Your task to perform on an android device: turn vacation reply on in the gmail app Image 0: 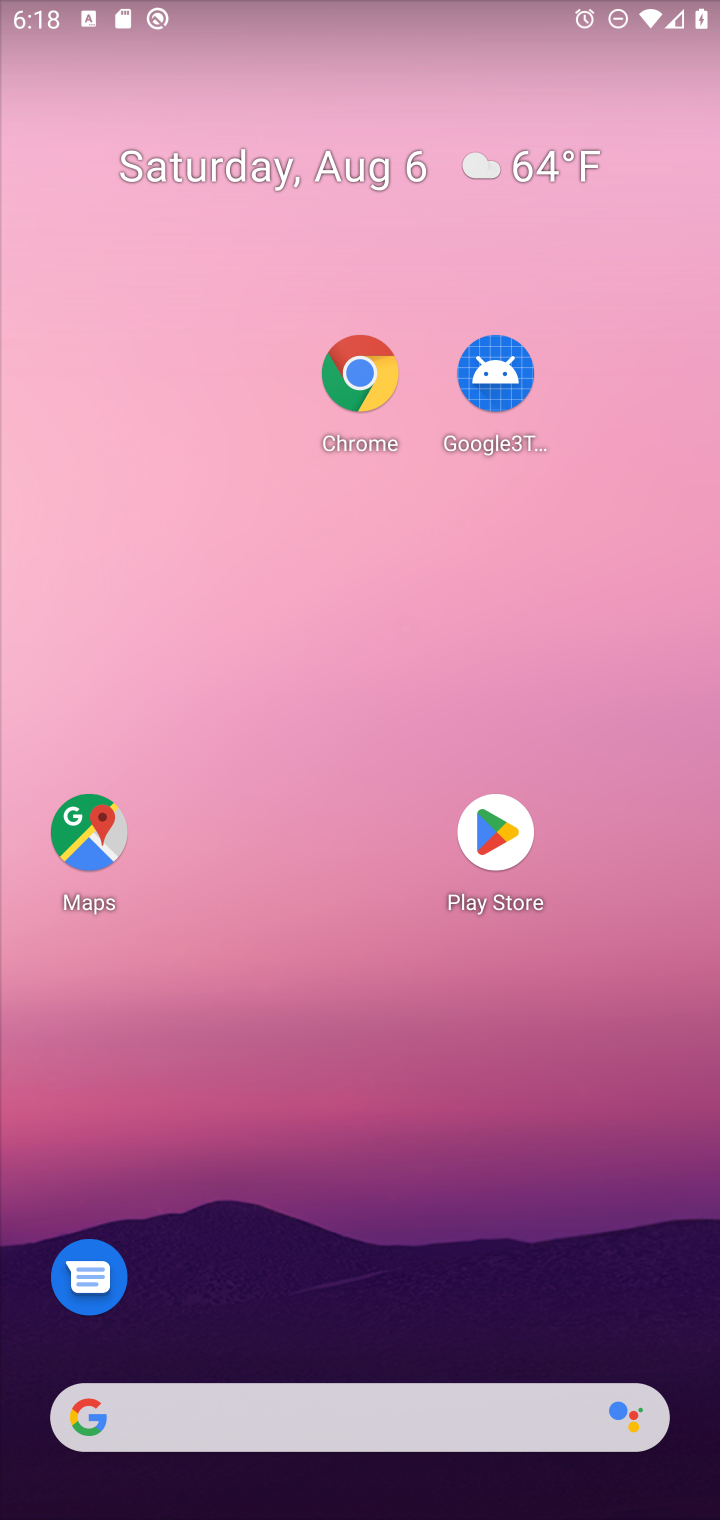
Step 0: drag from (529, 1405) to (499, 43)
Your task to perform on an android device: turn vacation reply on in the gmail app Image 1: 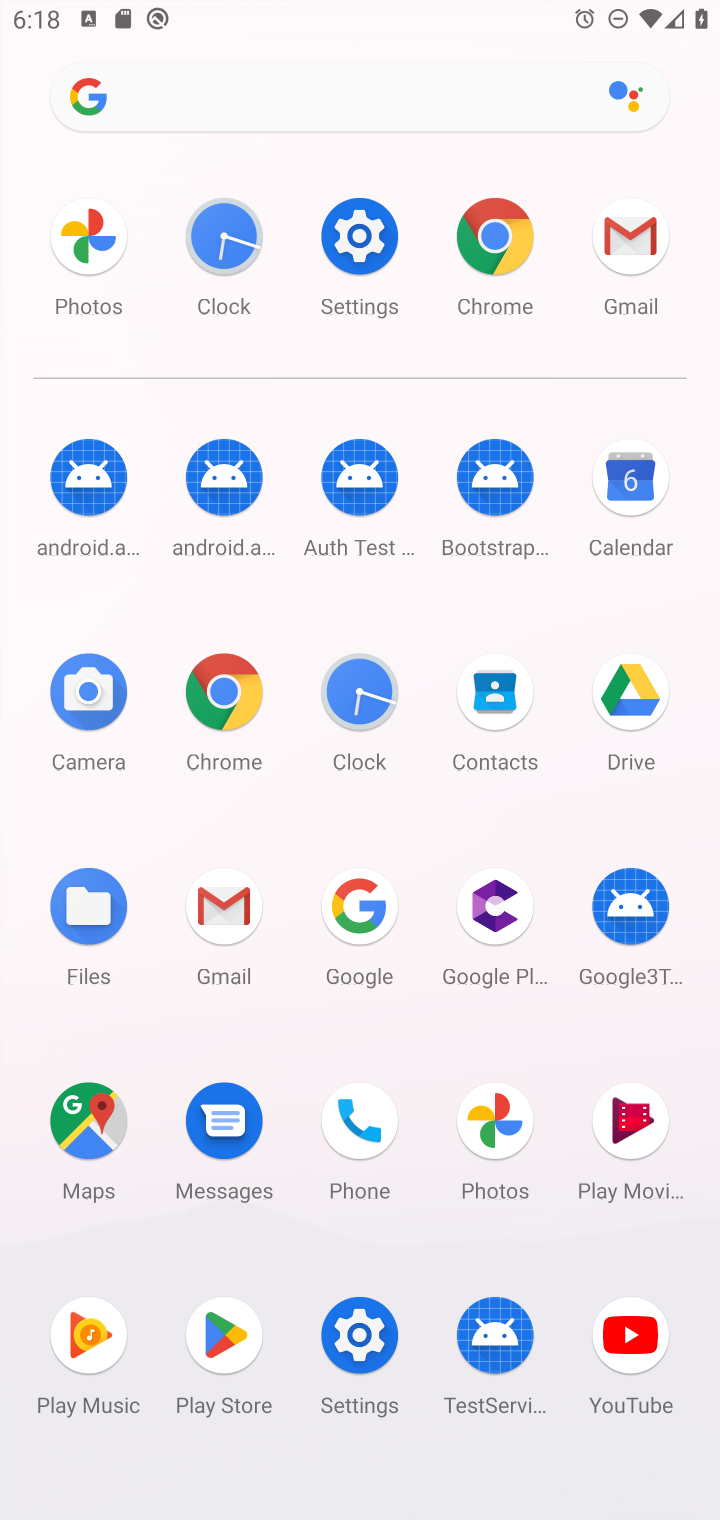
Step 1: click (245, 908)
Your task to perform on an android device: turn vacation reply on in the gmail app Image 2: 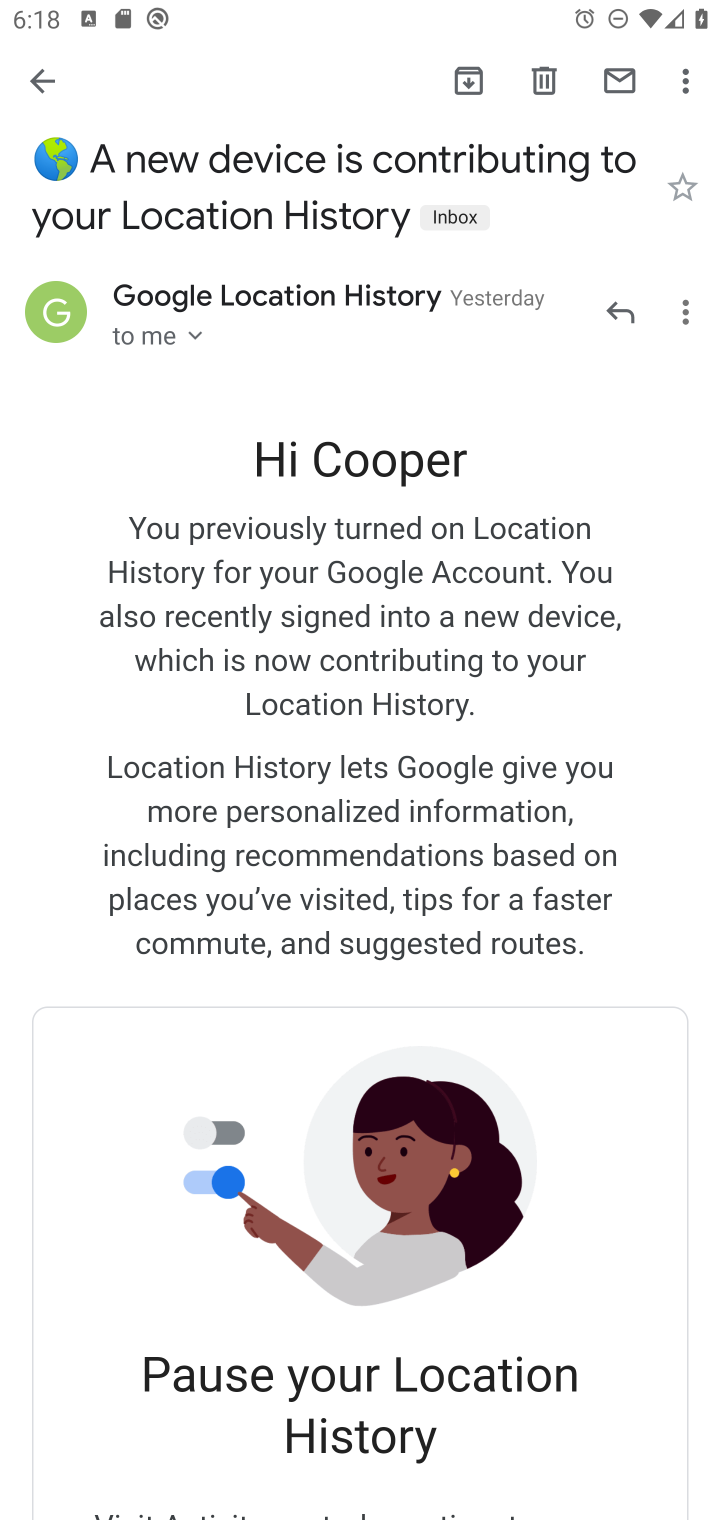
Step 2: press back button
Your task to perform on an android device: turn vacation reply on in the gmail app Image 3: 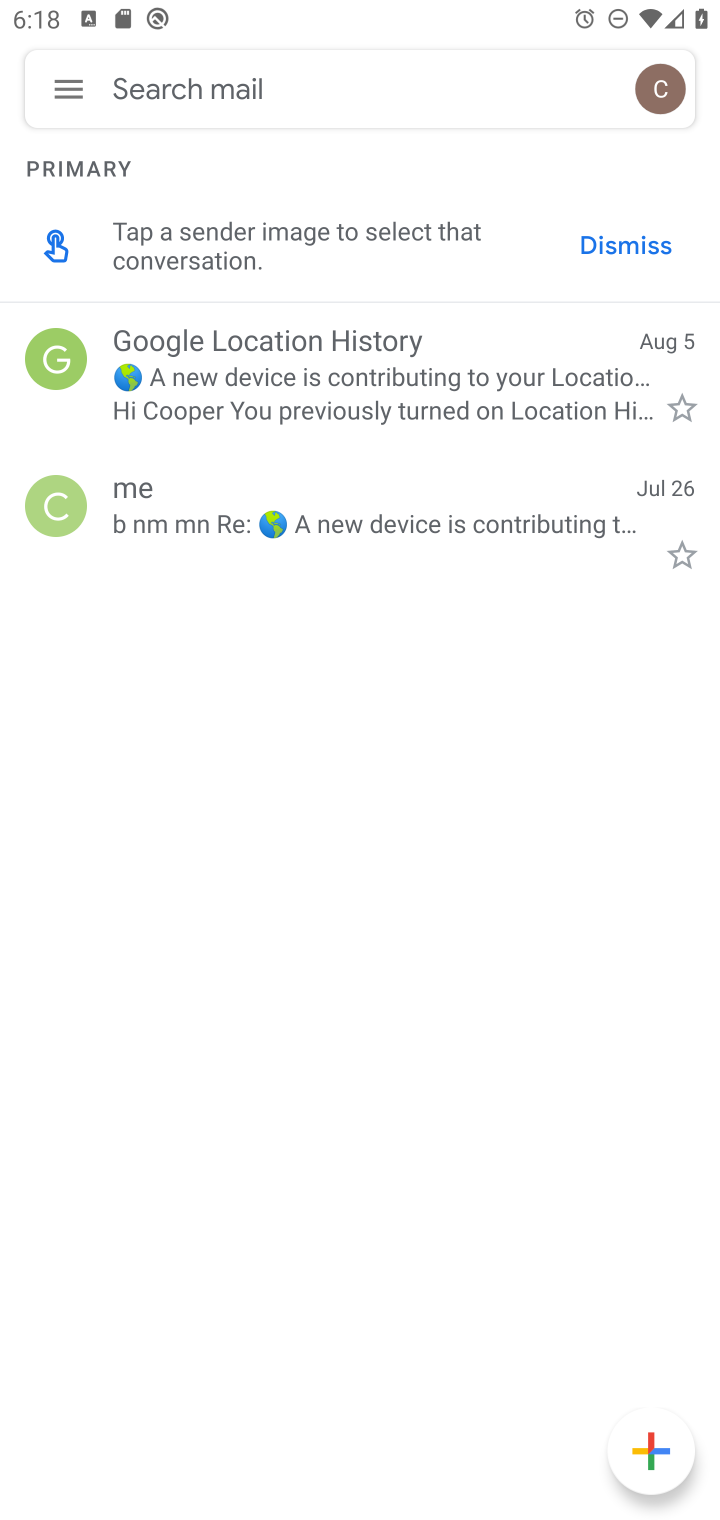
Step 3: click (64, 79)
Your task to perform on an android device: turn vacation reply on in the gmail app Image 4: 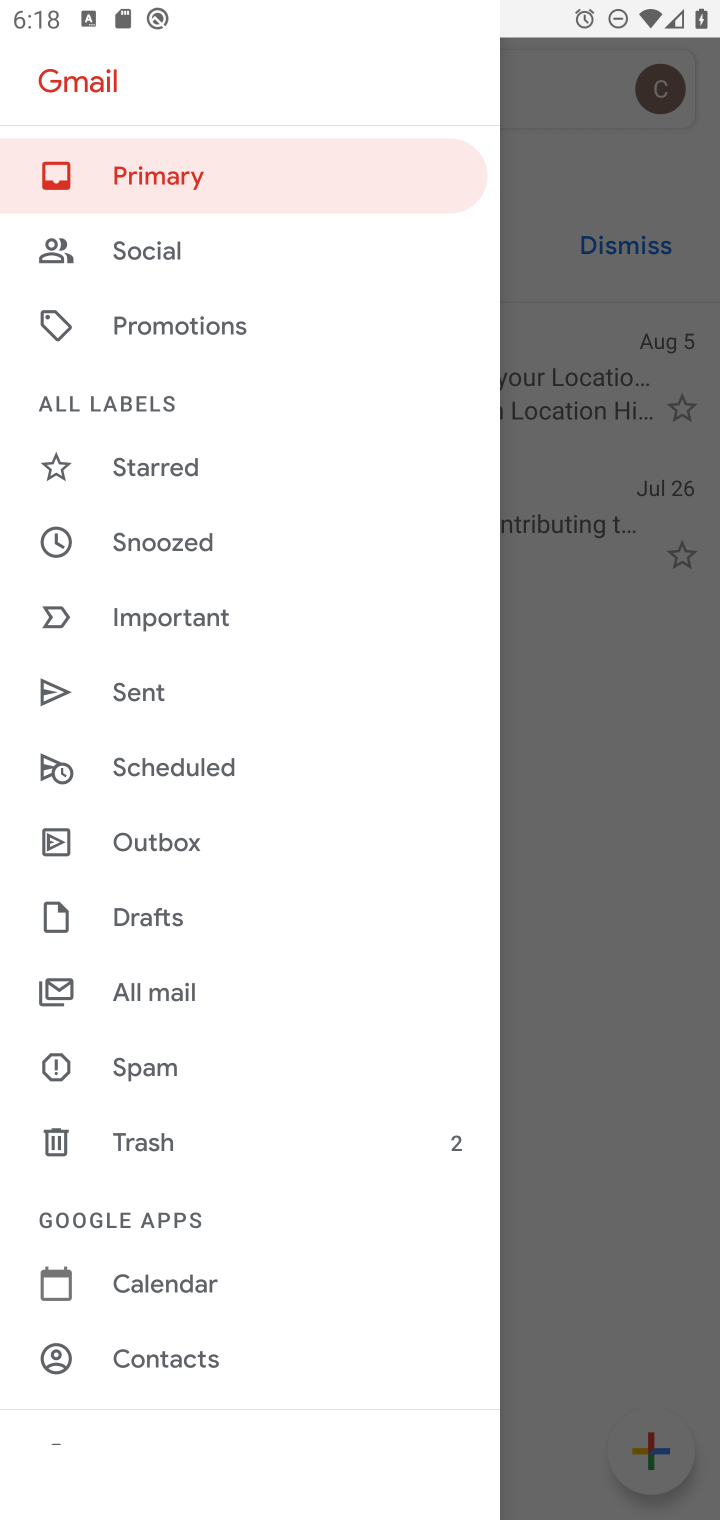
Step 4: drag from (302, 1373) to (333, 551)
Your task to perform on an android device: turn vacation reply on in the gmail app Image 5: 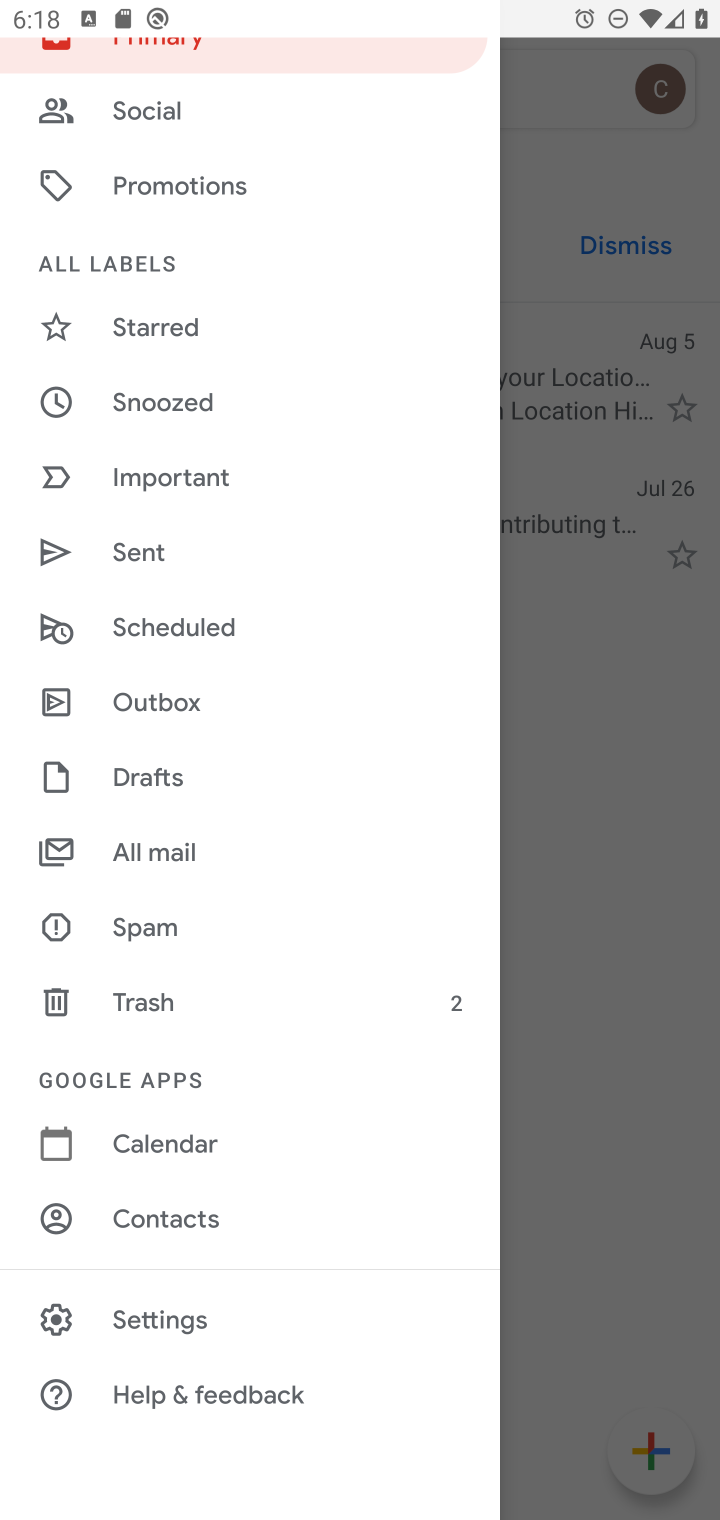
Step 5: click (220, 1308)
Your task to perform on an android device: turn vacation reply on in the gmail app Image 6: 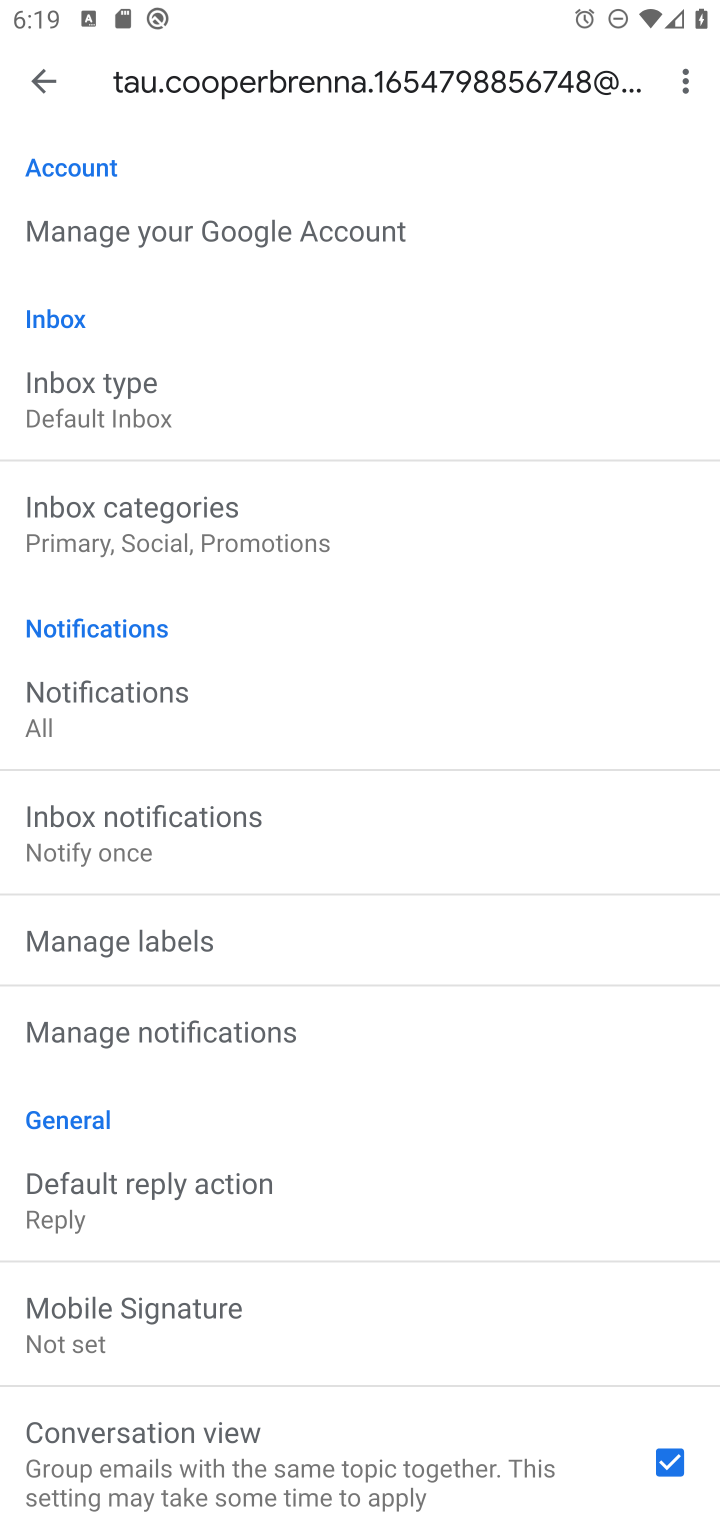
Step 6: drag from (505, 1334) to (495, 592)
Your task to perform on an android device: turn vacation reply on in the gmail app Image 7: 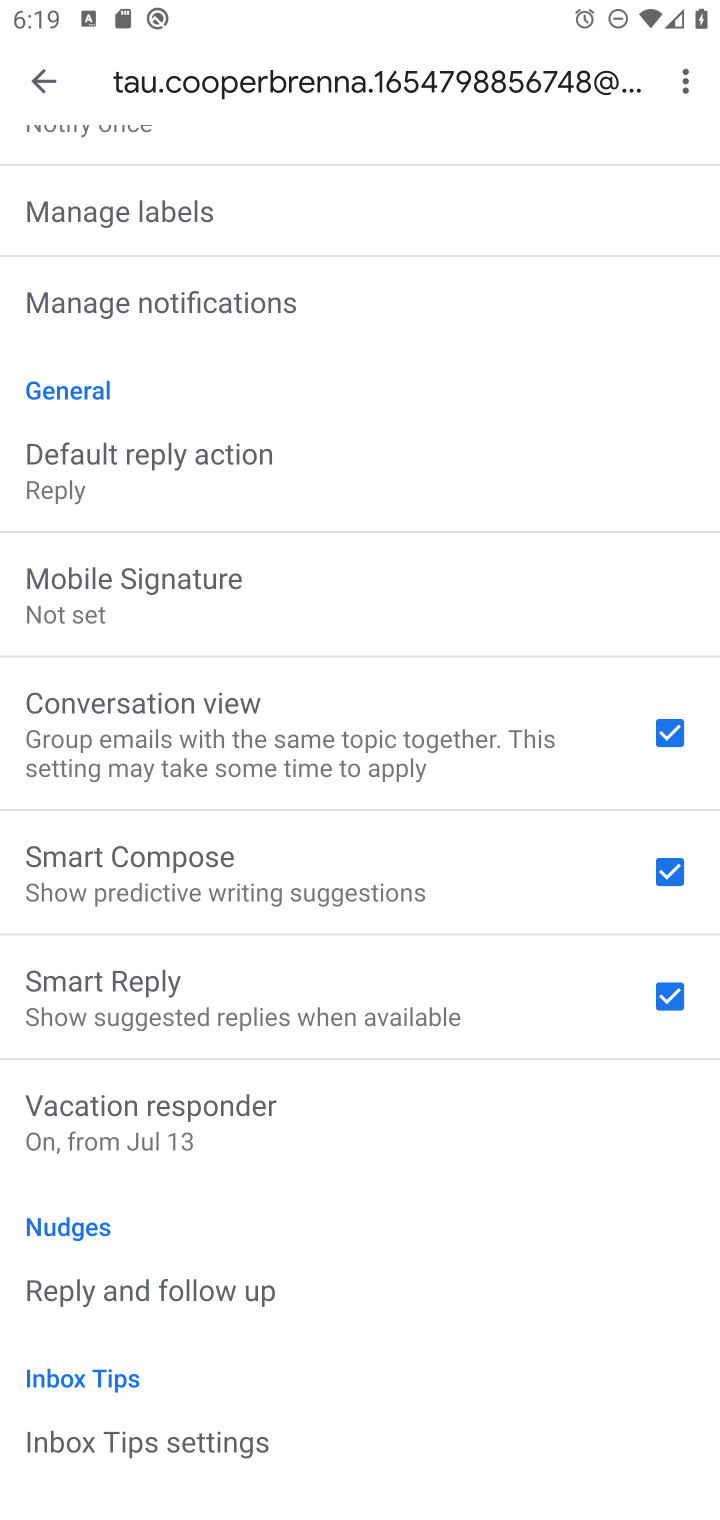
Step 7: drag from (386, 1384) to (384, 975)
Your task to perform on an android device: turn vacation reply on in the gmail app Image 8: 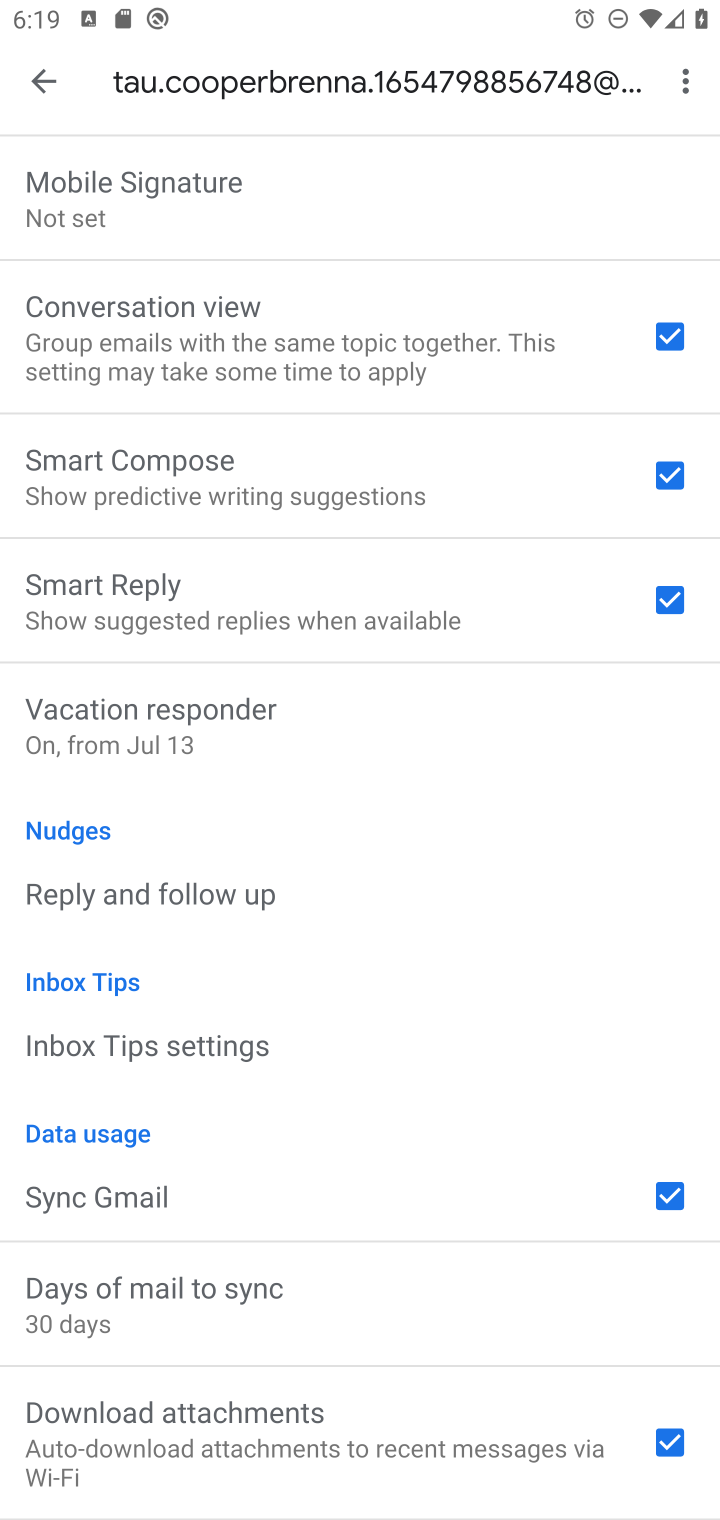
Step 8: click (222, 737)
Your task to perform on an android device: turn vacation reply on in the gmail app Image 9: 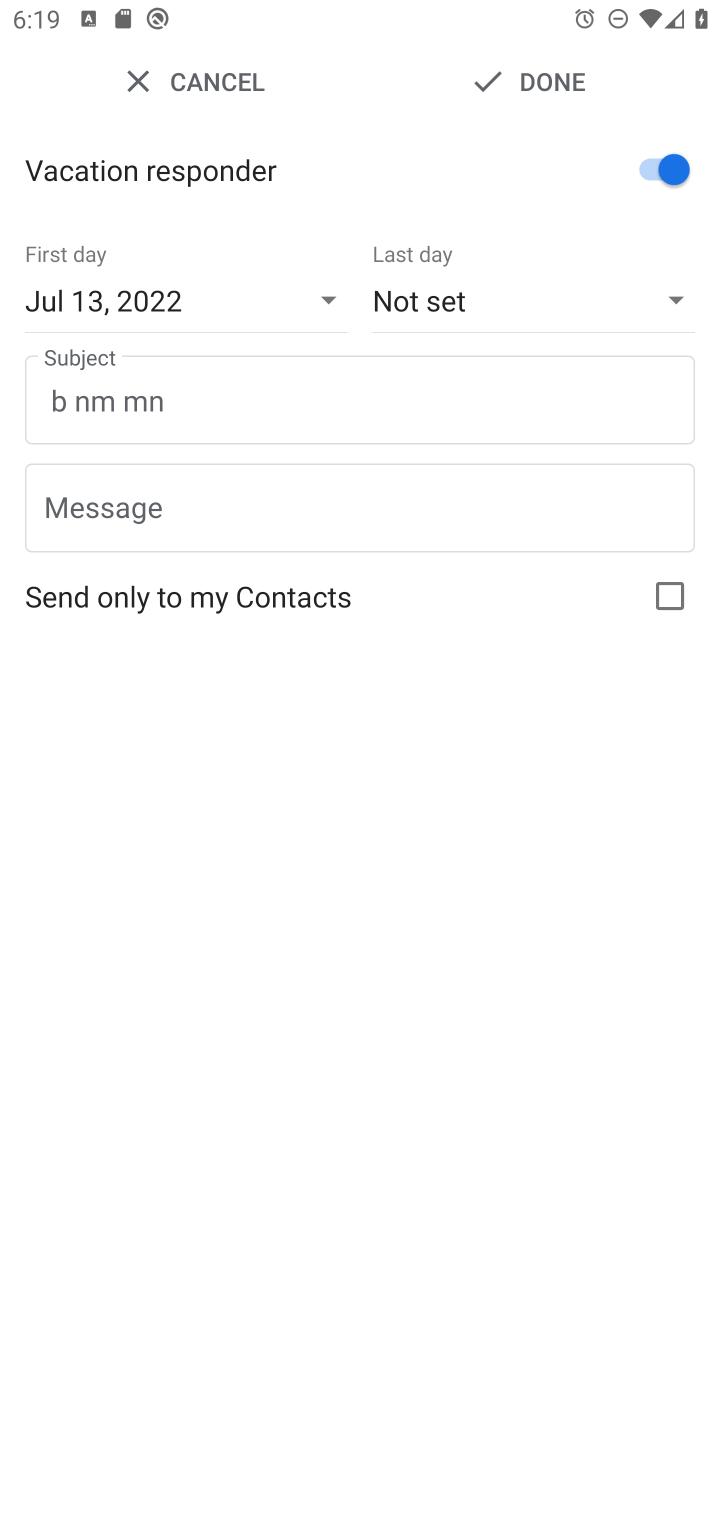
Step 9: click (548, 71)
Your task to perform on an android device: turn vacation reply on in the gmail app Image 10: 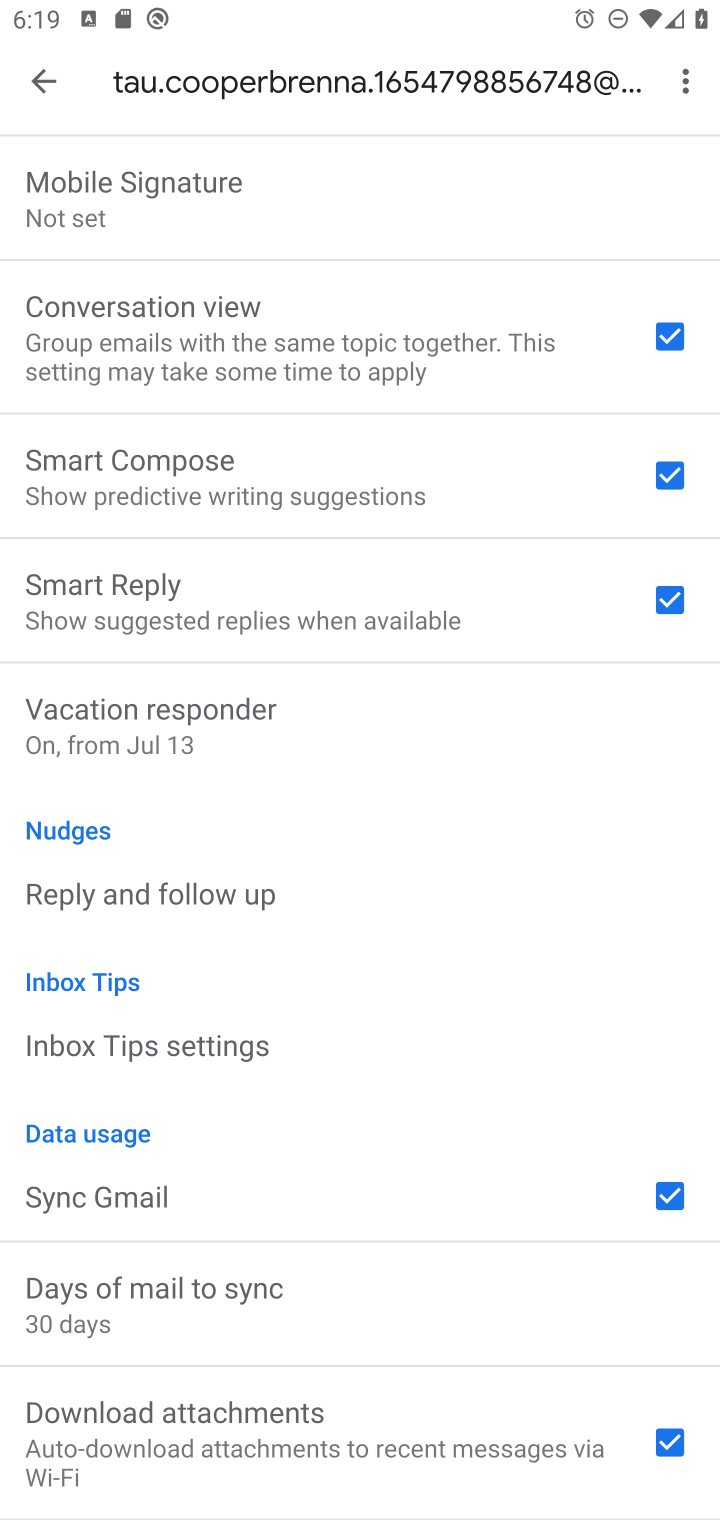
Step 10: task complete